Your task to perform on an android device: remove spam from my inbox in the gmail app Image 0: 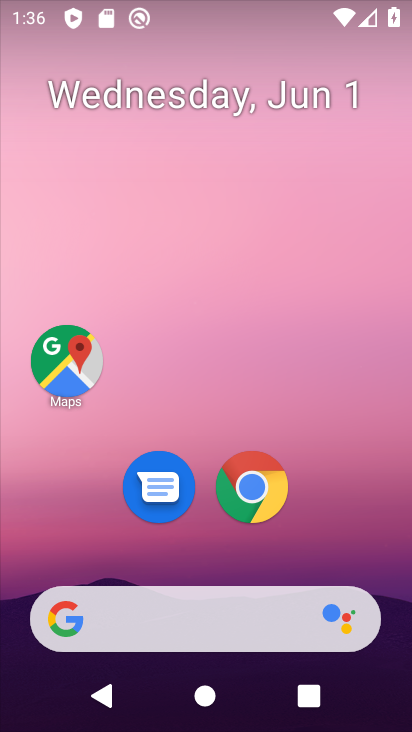
Step 0: drag from (371, 560) to (379, 149)
Your task to perform on an android device: remove spam from my inbox in the gmail app Image 1: 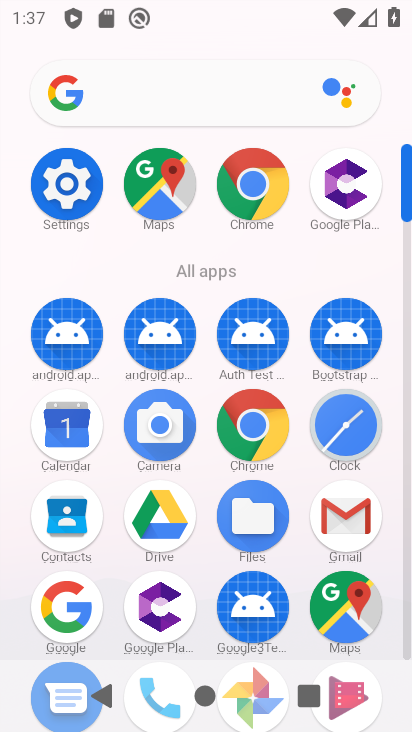
Step 1: click (321, 522)
Your task to perform on an android device: remove spam from my inbox in the gmail app Image 2: 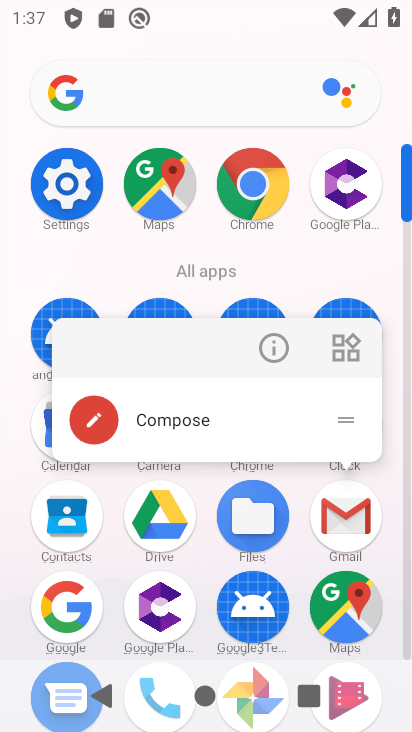
Step 2: click (354, 528)
Your task to perform on an android device: remove spam from my inbox in the gmail app Image 3: 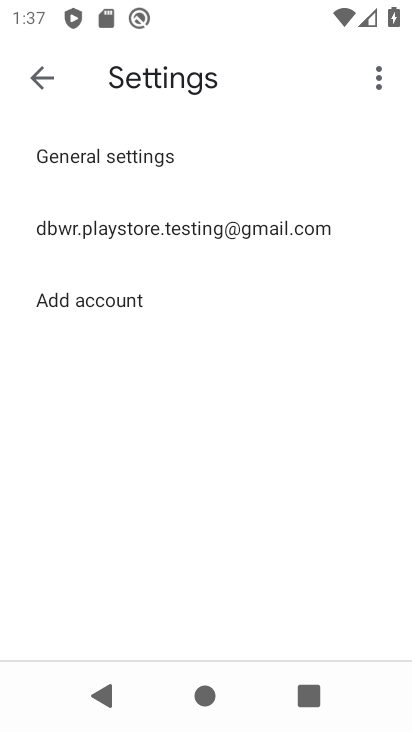
Step 3: click (41, 79)
Your task to perform on an android device: remove spam from my inbox in the gmail app Image 4: 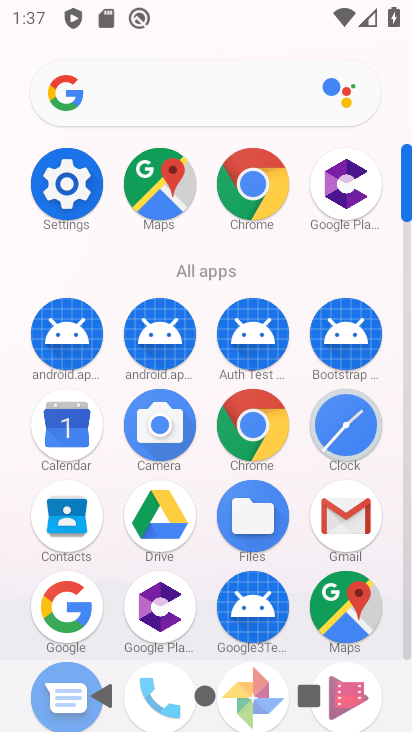
Step 4: click (340, 519)
Your task to perform on an android device: remove spam from my inbox in the gmail app Image 5: 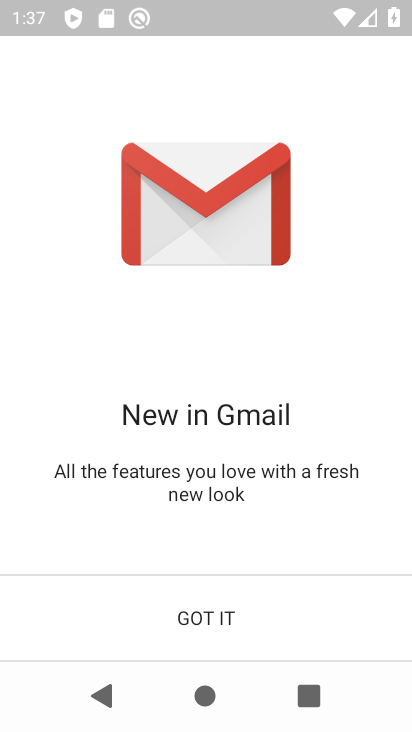
Step 5: click (226, 621)
Your task to perform on an android device: remove spam from my inbox in the gmail app Image 6: 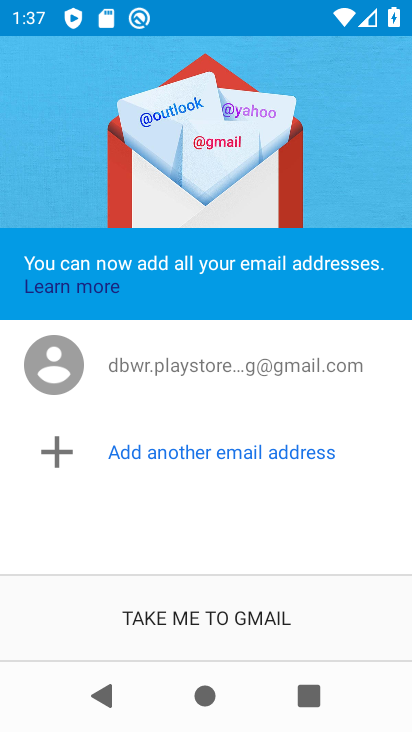
Step 6: click (227, 620)
Your task to perform on an android device: remove spam from my inbox in the gmail app Image 7: 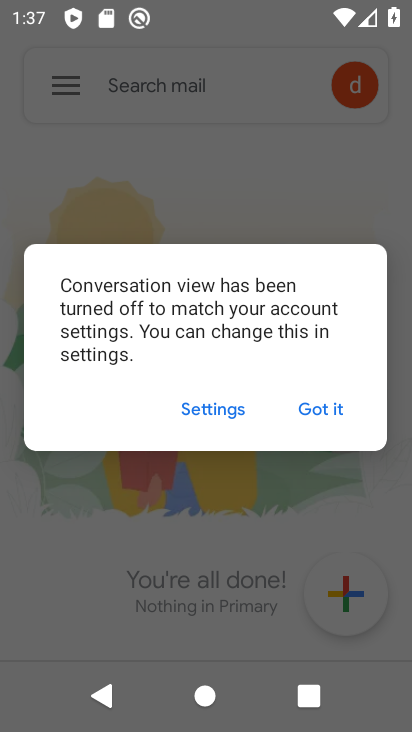
Step 7: click (324, 411)
Your task to perform on an android device: remove spam from my inbox in the gmail app Image 8: 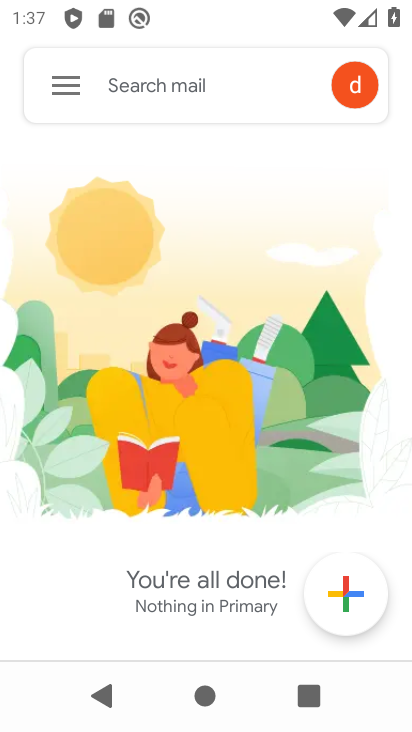
Step 8: click (62, 89)
Your task to perform on an android device: remove spam from my inbox in the gmail app Image 9: 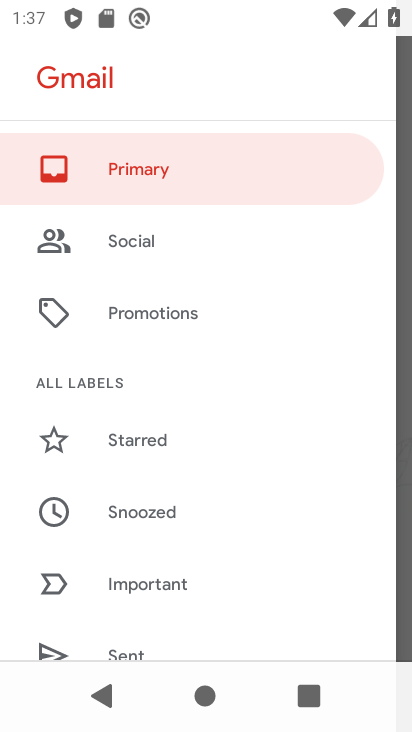
Step 9: drag from (306, 378) to (305, 249)
Your task to perform on an android device: remove spam from my inbox in the gmail app Image 10: 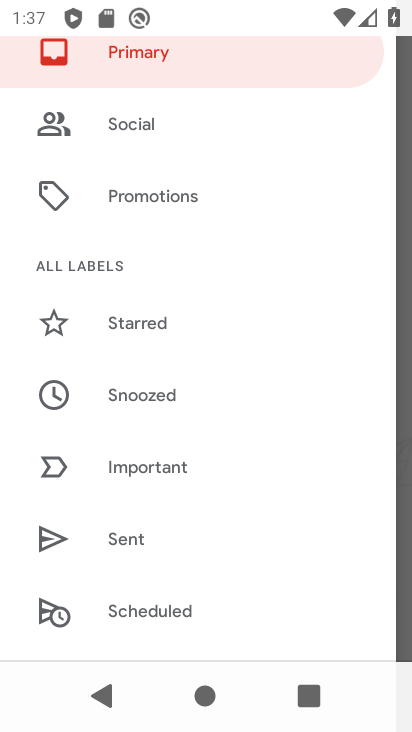
Step 10: drag from (285, 417) to (283, 220)
Your task to perform on an android device: remove spam from my inbox in the gmail app Image 11: 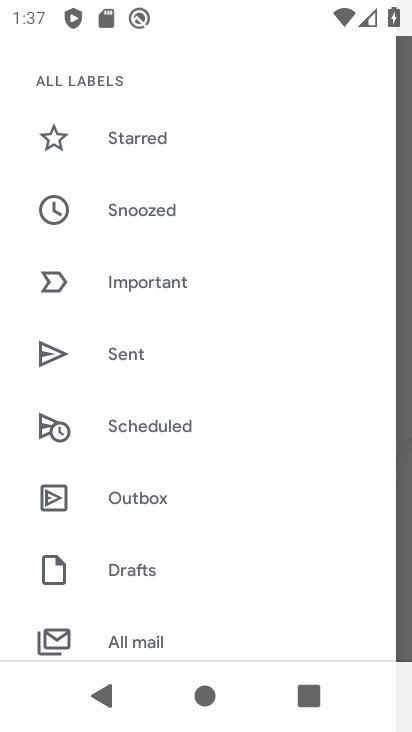
Step 11: drag from (261, 457) to (270, 286)
Your task to perform on an android device: remove spam from my inbox in the gmail app Image 12: 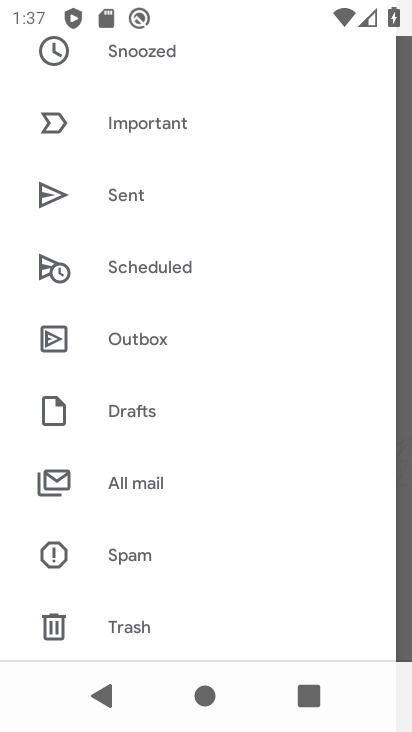
Step 12: drag from (250, 536) to (260, 303)
Your task to perform on an android device: remove spam from my inbox in the gmail app Image 13: 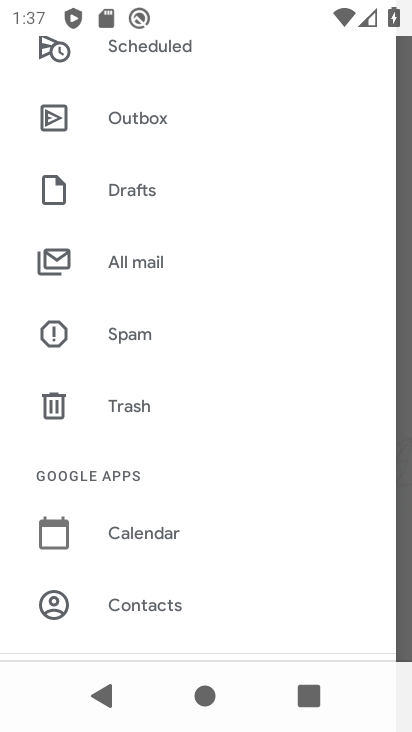
Step 13: click (183, 329)
Your task to perform on an android device: remove spam from my inbox in the gmail app Image 14: 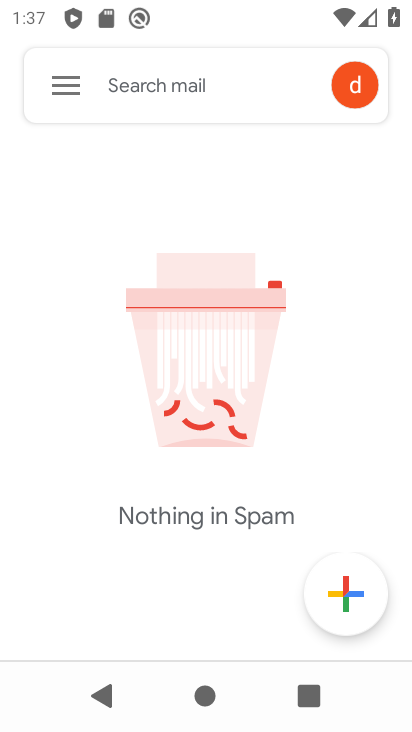
Step 14: task complete